Your task to perform on an android device: uninstall "Grab" Image 0: 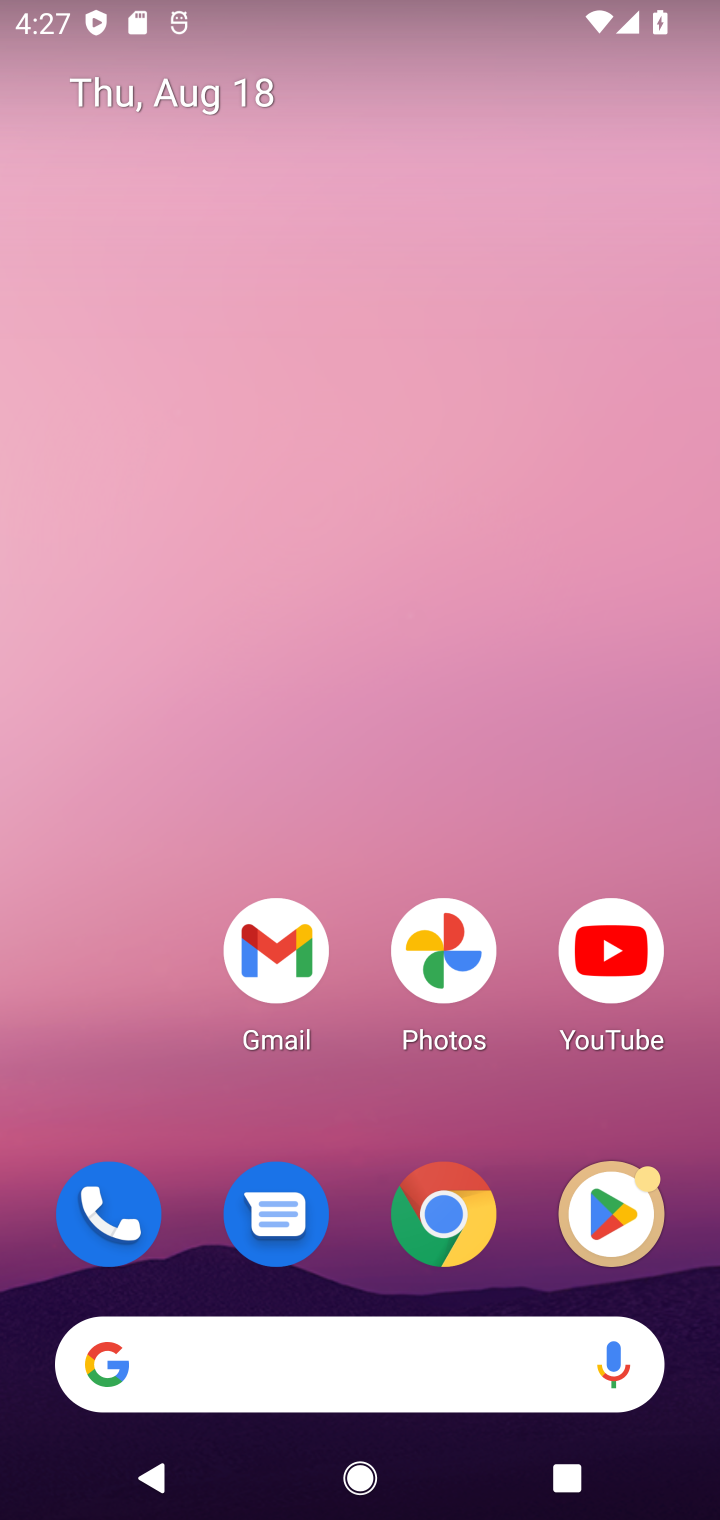
Step 0: drag from (357, 1186) to (356, 394)
Your task to perform on an android device: uninstall "Grab" Image 1: 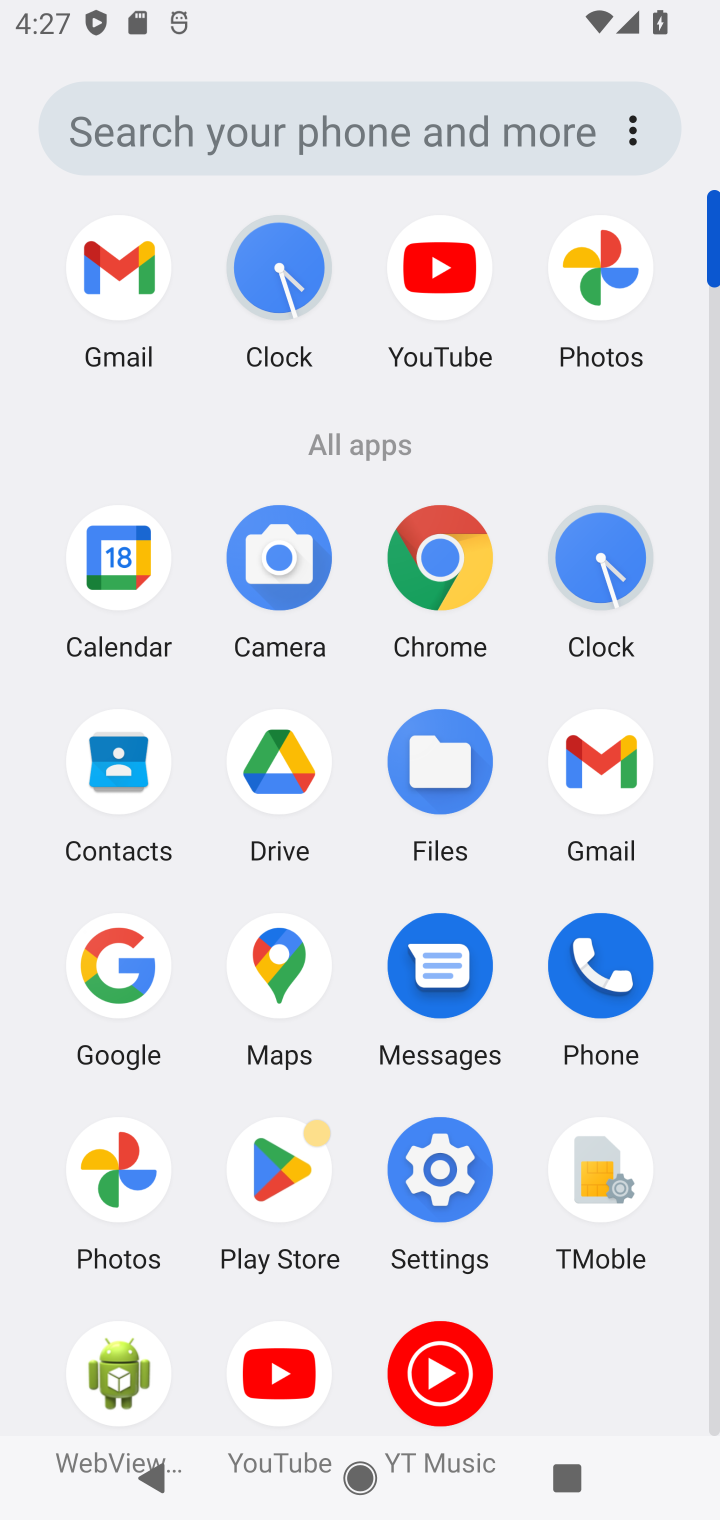
Step 1: click (275, 1179)
Your task to perform on an android device: uninstall "Grab" Image 2: 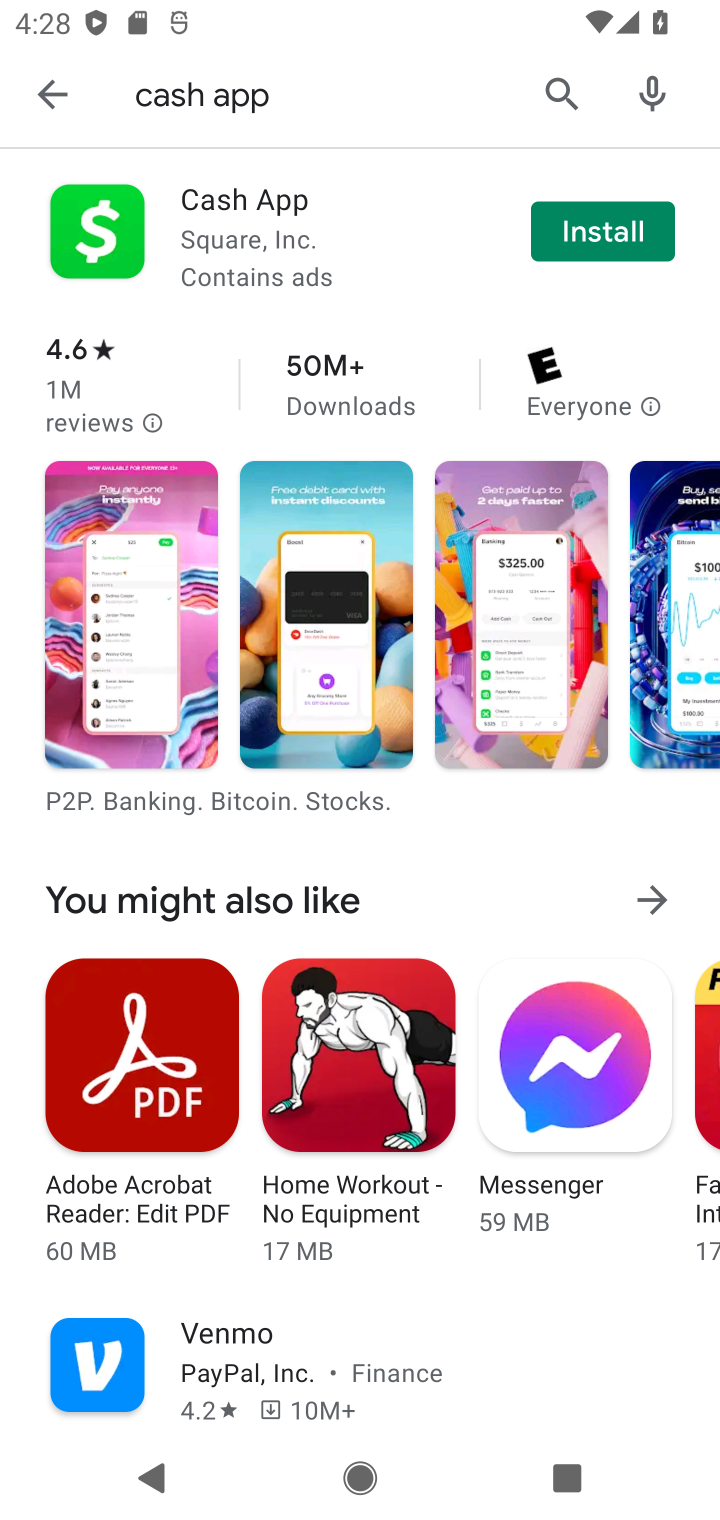
Step 2: task complete